Your task to perform on an android device: turn off location Image 0: 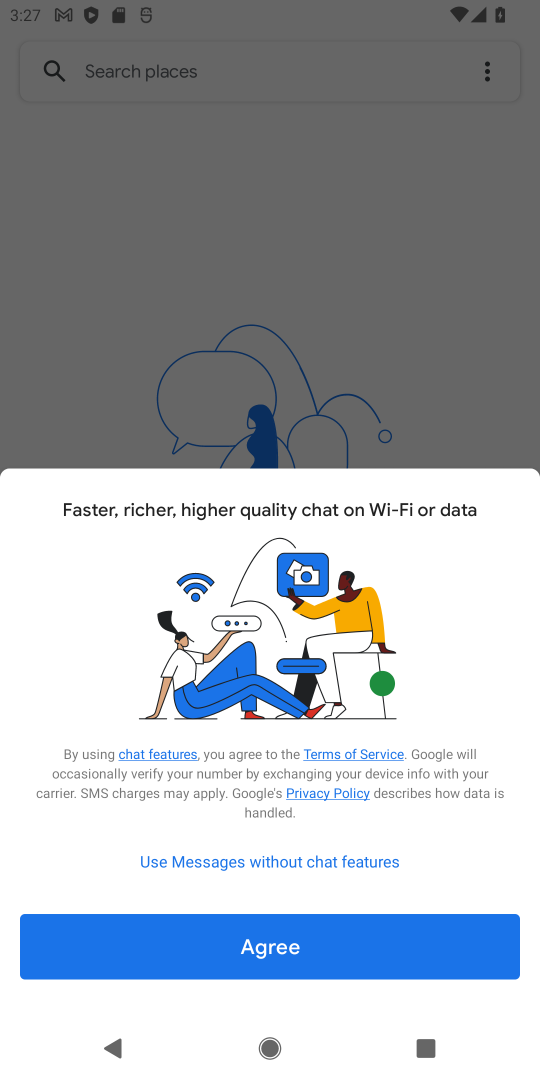
Step 0: task impossible